Your task to perform on an android device: Check the weather Image 0: 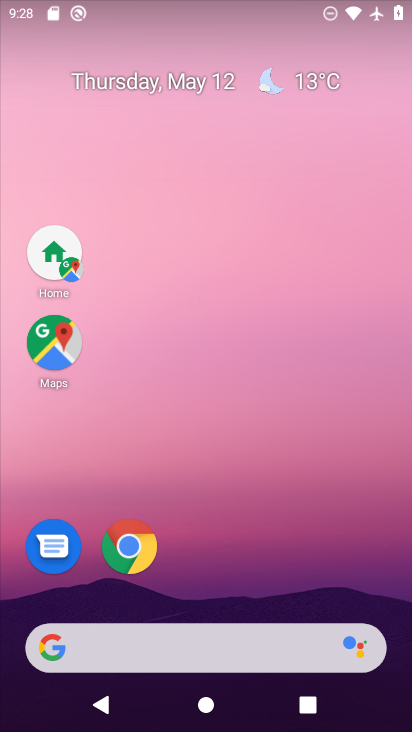
Step 0: click (297, 83)
Your task to perform on an android device: Check the weather Image 1: 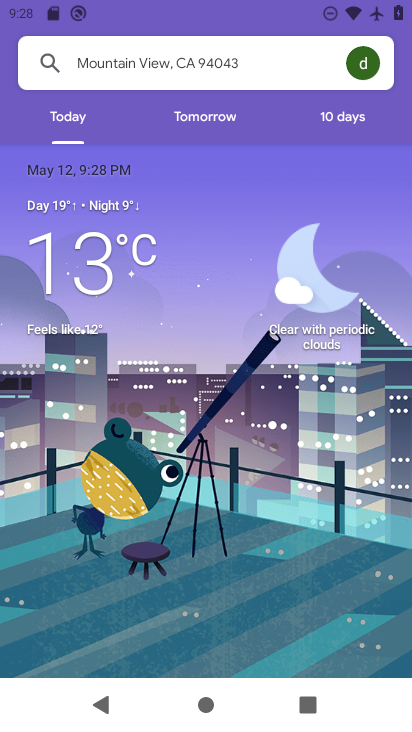
Step 1: task complete